Your task to perform on an android device: Search for Italian restaurants on Maps Image 0: 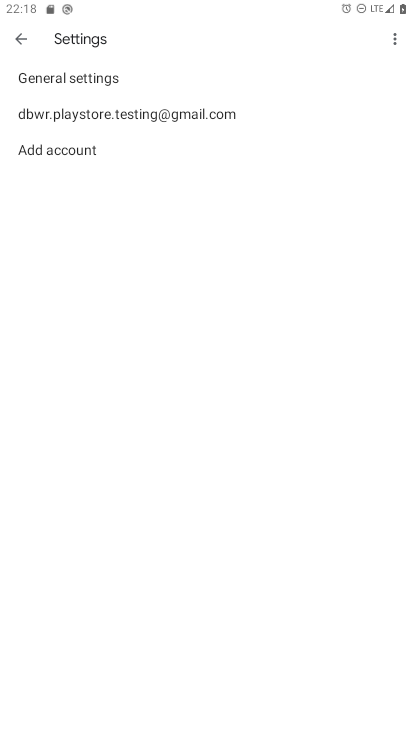
Step 0: press home button
Your task to perform on an android device: Search for Italian restaurants on Maps Image 1: 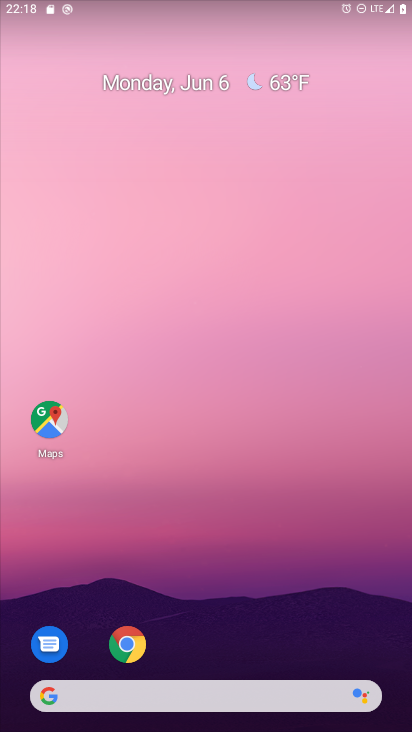
Step 1: drag from (255, 711) to (177, 189)
Your task to perform on an android device: Search for Italian restaurants on Maps Image 2: 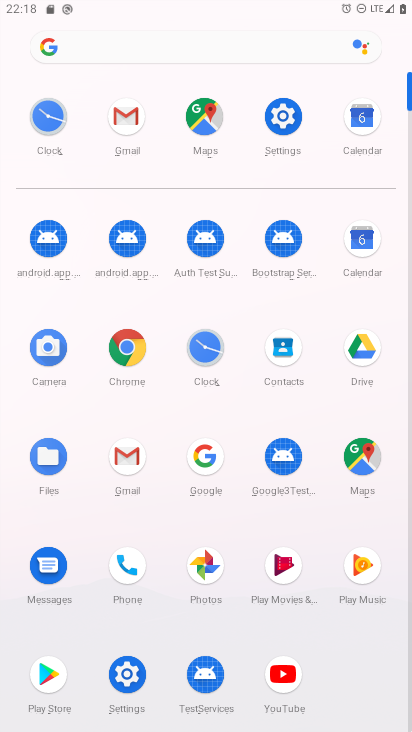
Step 2: click (350, 461)
Your task to perform on an android device: Search for Italian restaurants on Maps Image 3: 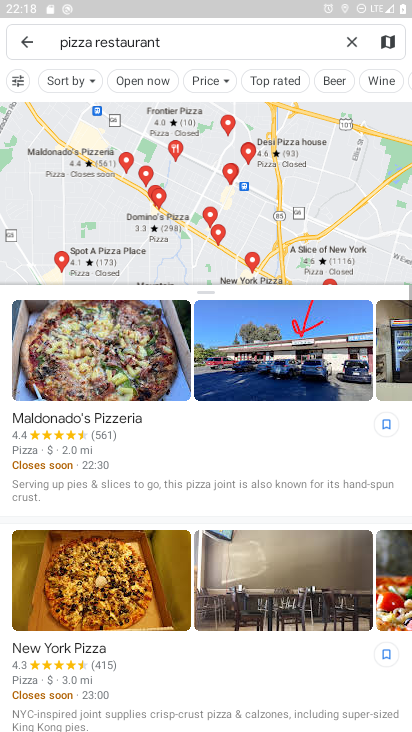
Step 3: click (349, 34)
Your task to perform on an android device: Search for Italian restaurants on Maps Image 4: 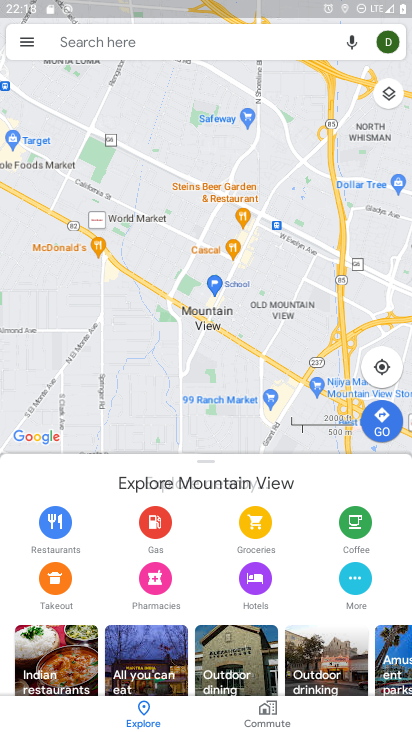
Step 4: click (226, 42)
Your task to perform on an android device: Search for Italian restaurants on Maps Image 5: 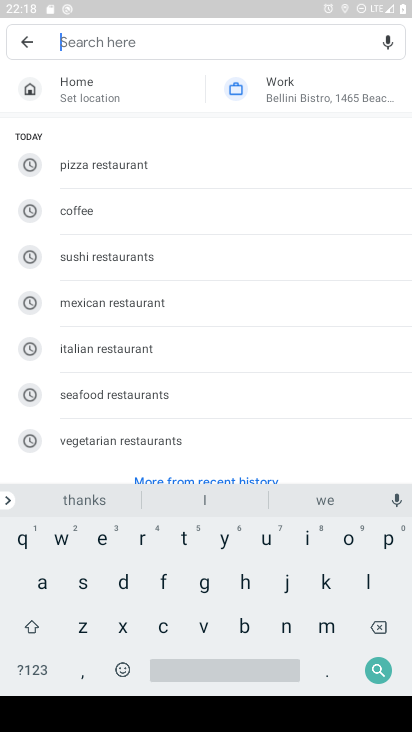
Step 5: click (306, 544)
Your task to perform on an android device: Search for Italian restaurants on Maps Image 6: 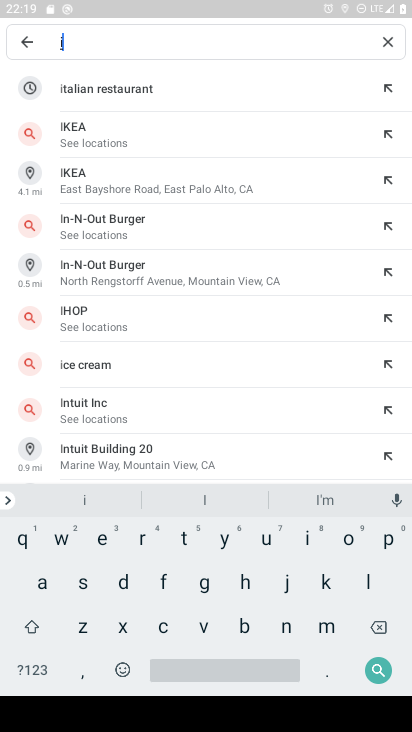
Step 6: click (129, 98)
Your task to perform on an android device: Search for Italian restaurants on Maps Image 7: 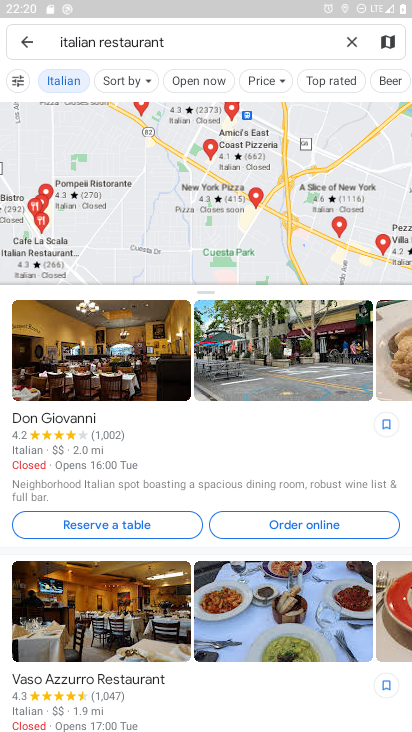
Step 7: task complete